Your task to perform on an android device: Go to ESPN.com Image 0: 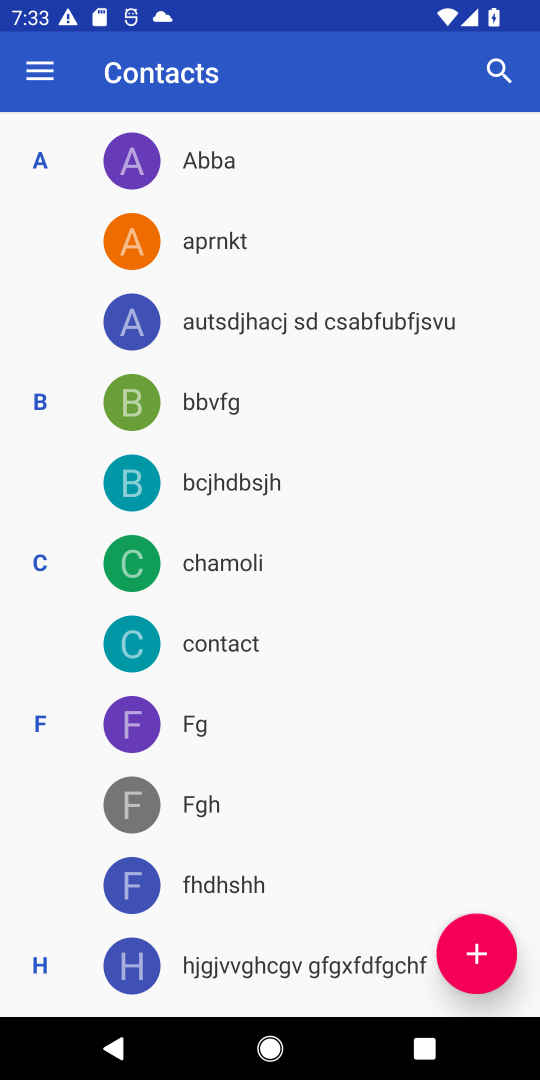
Step 0: press home button
Your task to perform on an android device: Go to ESPN.com Image 1: 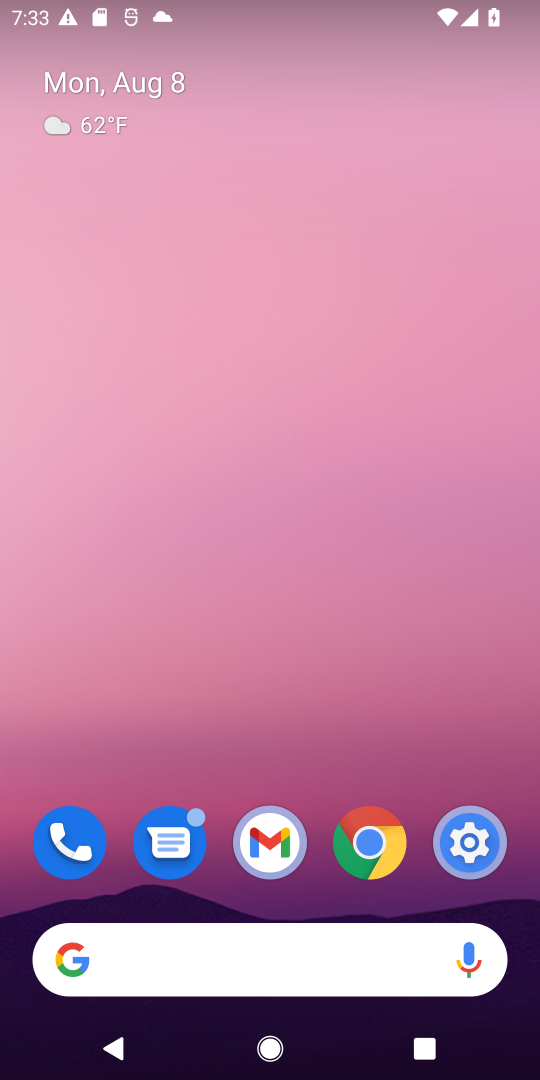
Step 1: click (222, 968)
Your task to perform on an android device: Go to ESPN.com Image 2: 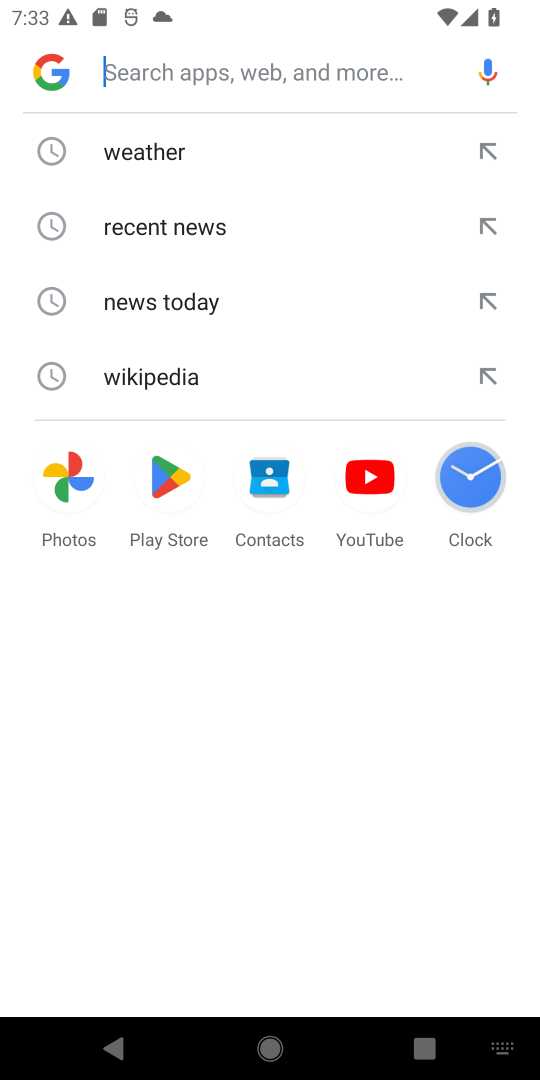
Step 2: type "espn.com"
Your task to perform on an android device: Go to ESPN.com Image 3: 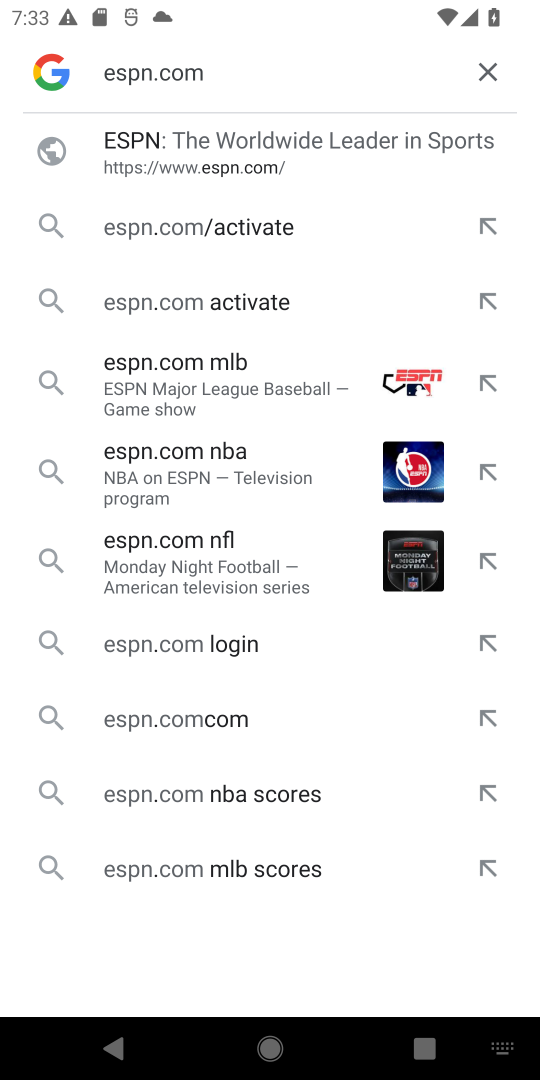
Step 3: click (317, 149)
Your task to perform on an android device: Go to ESPN.com Image 4: 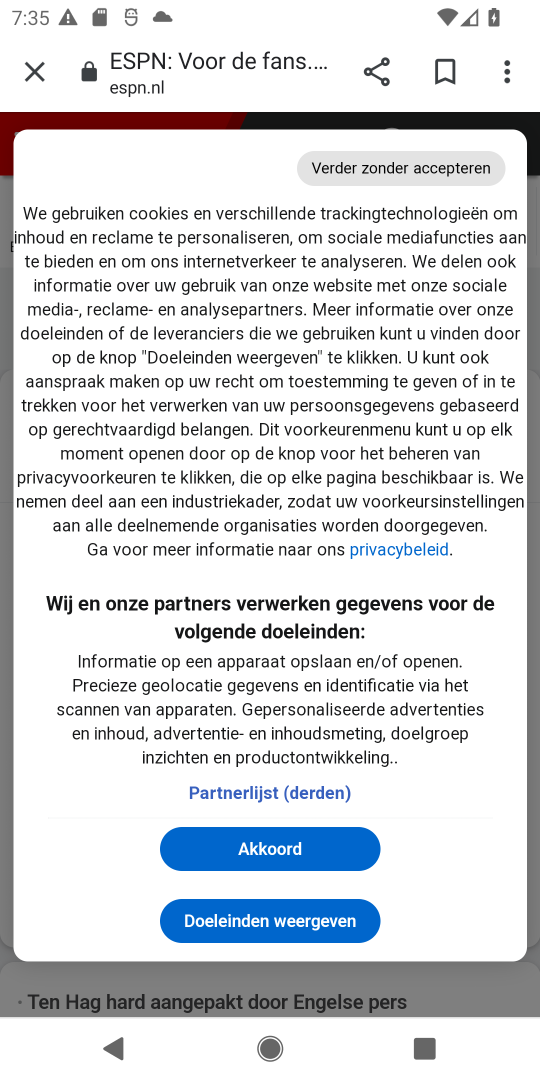
Step 4: click (465, 173)
Your task to perform on an android device: Go to ESPN.com Image 5: 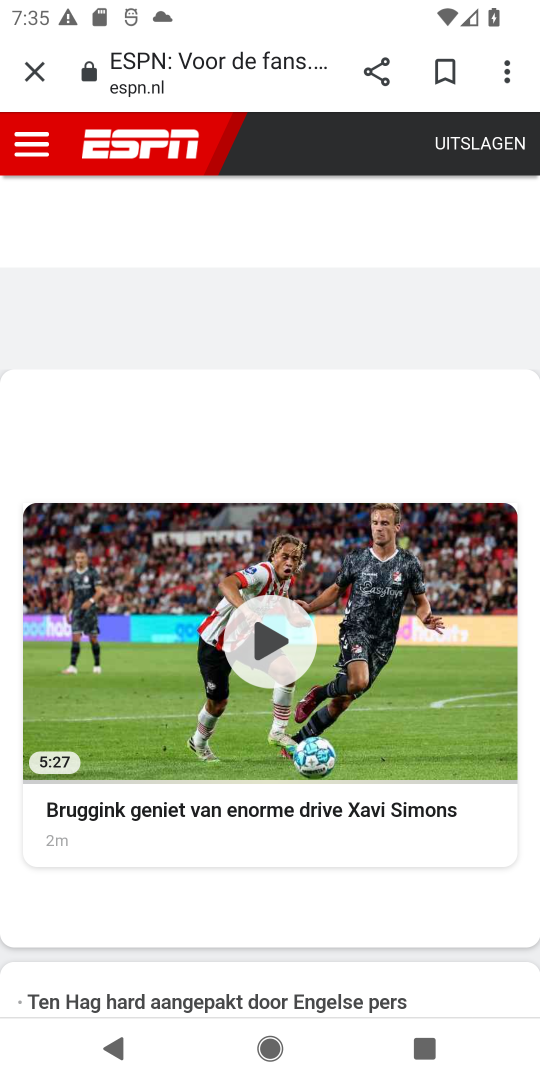
Step 5: task complete